Your task to perform on an android device: open app "VLC for Android" (install if not already installed) Image 0: 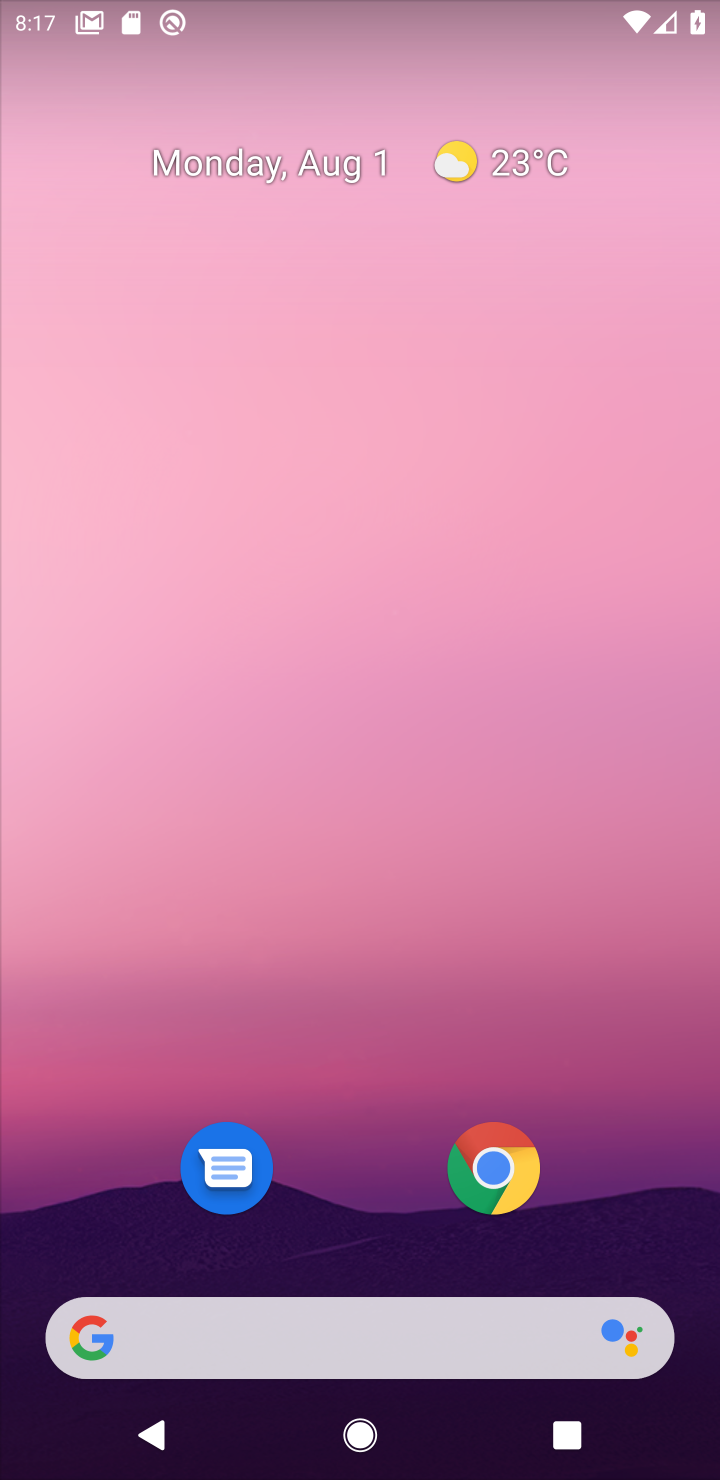
Step 0: drag from (405, 701) to (417, 342)
Your task to perform on an android device: open app "VLC for Android" (install if not already installed) Image 1: 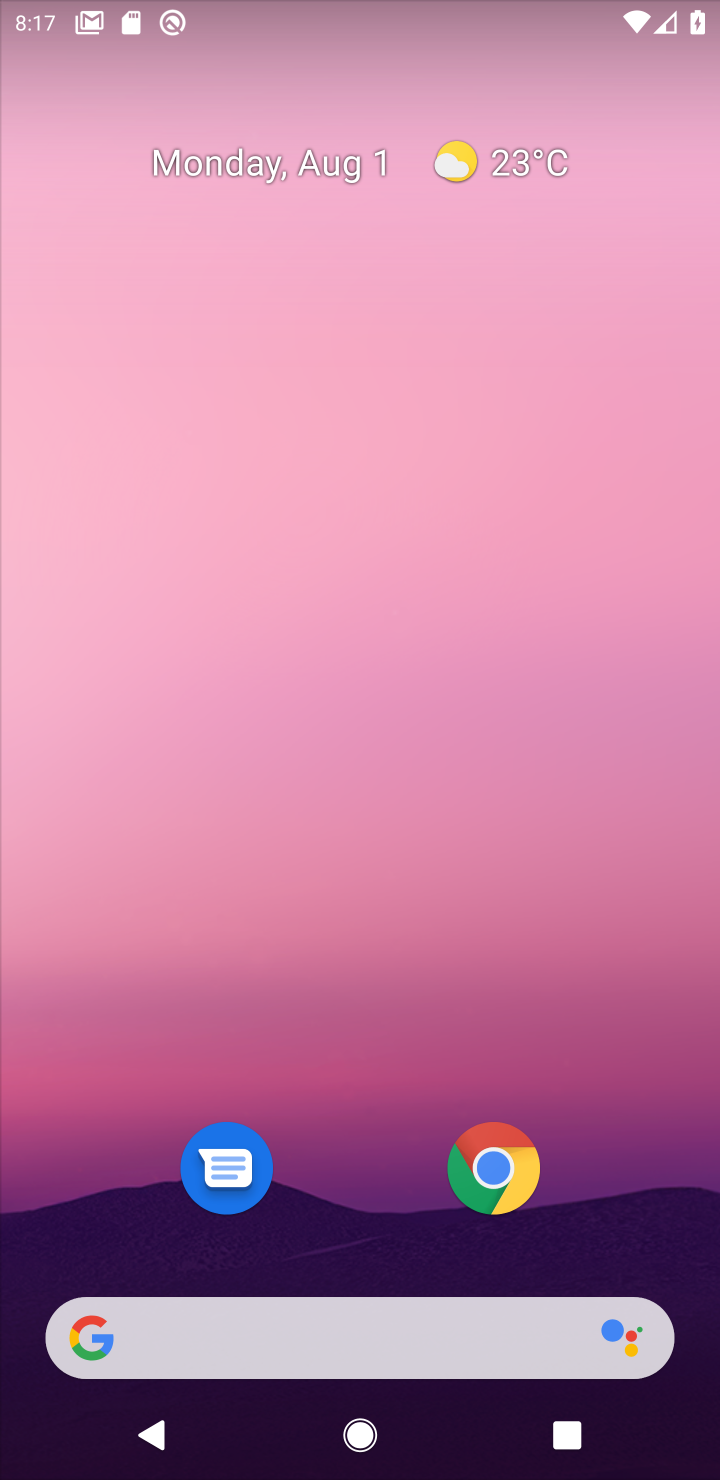
Step 1: drag from (379, 1230) to (362, 337)
Your task to perform on an android device: open app "VLC for Android" (install if not already installed) Image 2: 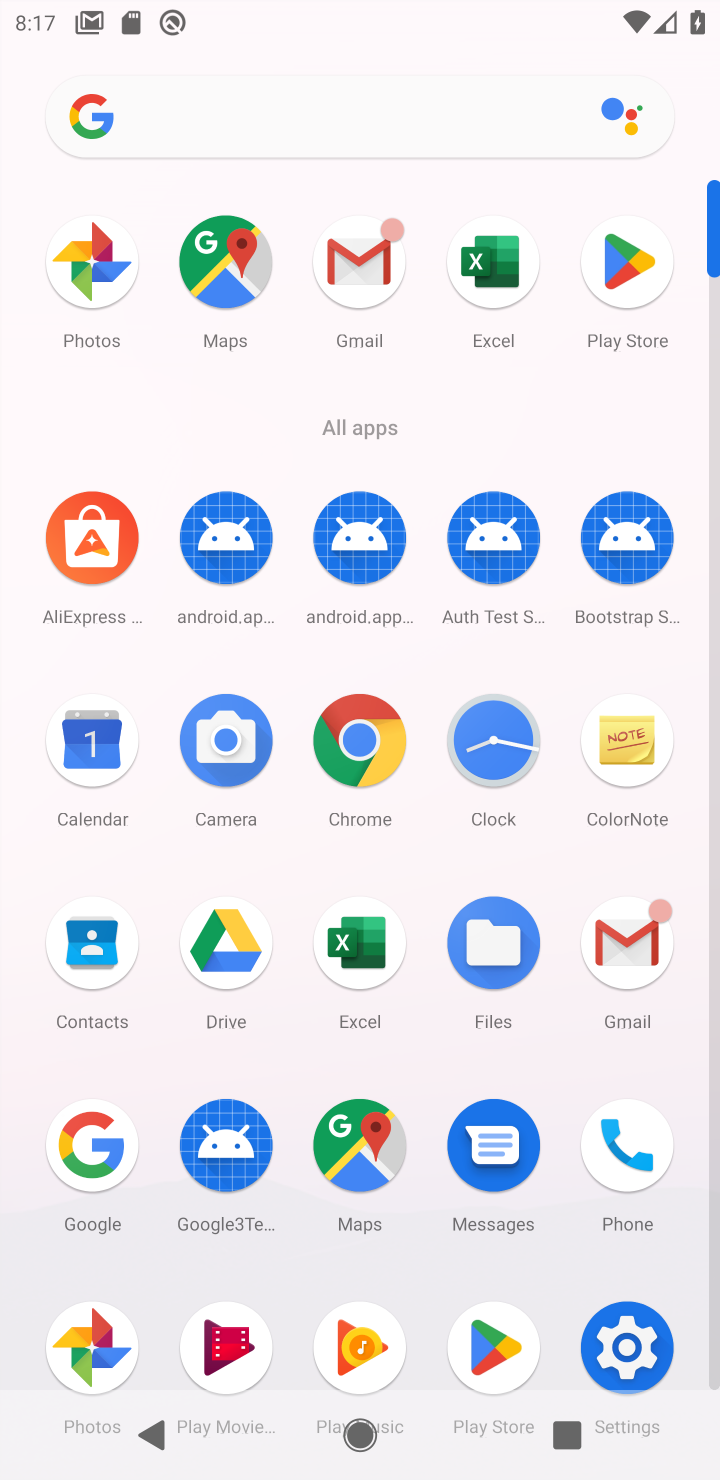
Step 2: click (495, 1326)
Your task to perform on an android device: open app "VLC for Android" (install if not already installed) Image 3: 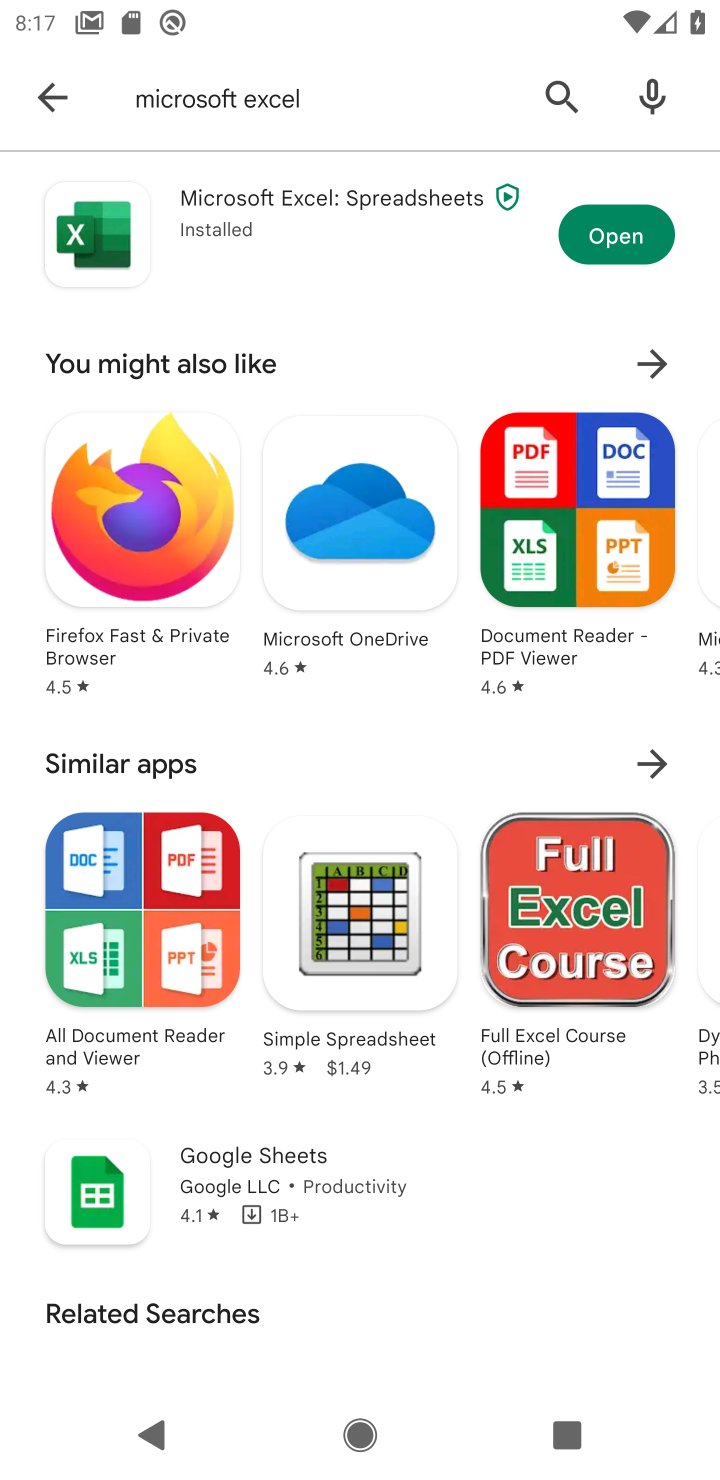
Step 3: click (262, 120)
Your task to perform on an android device: open app "VLC for Android" (install if not already installed) Image 4: 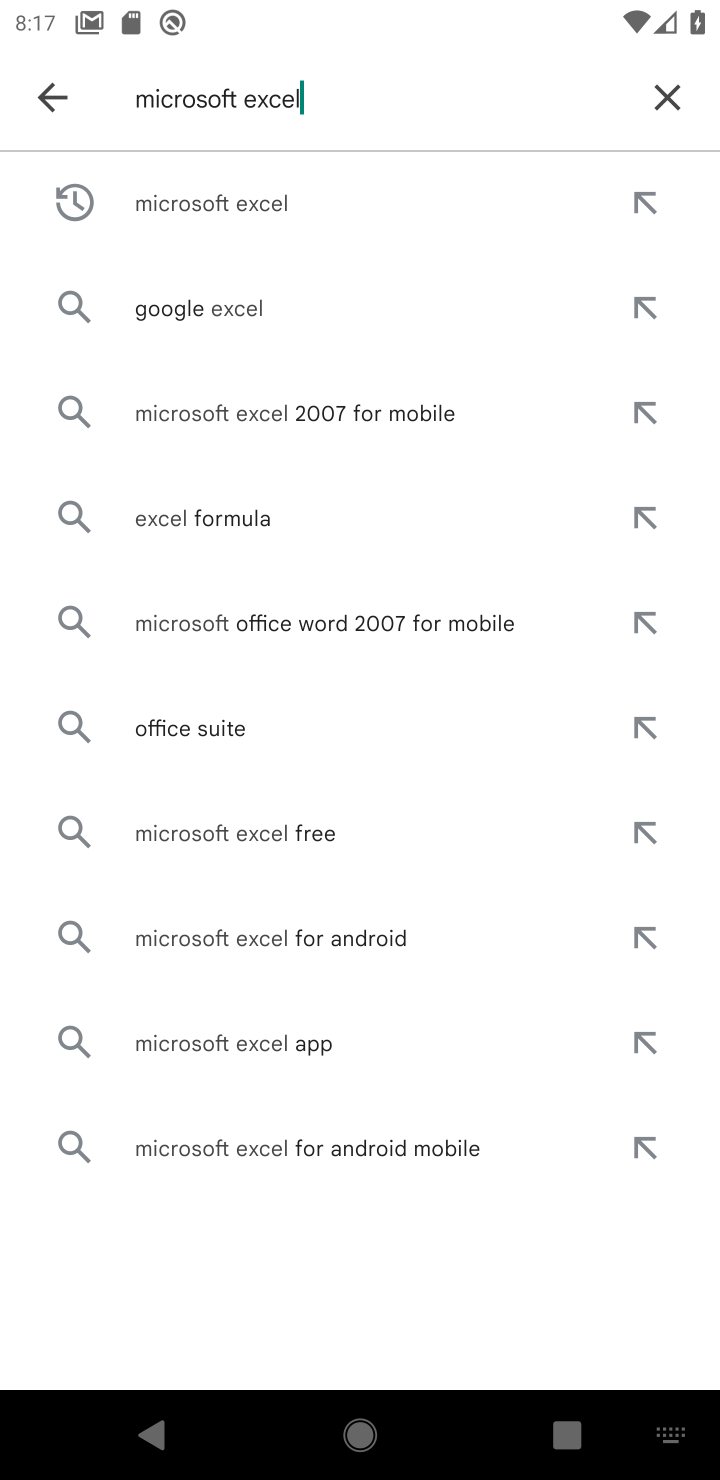
Step 4: click (666, 100)
Your task to perform on an android device: open app "VLC for Android" (install if not already installed) Image 5: 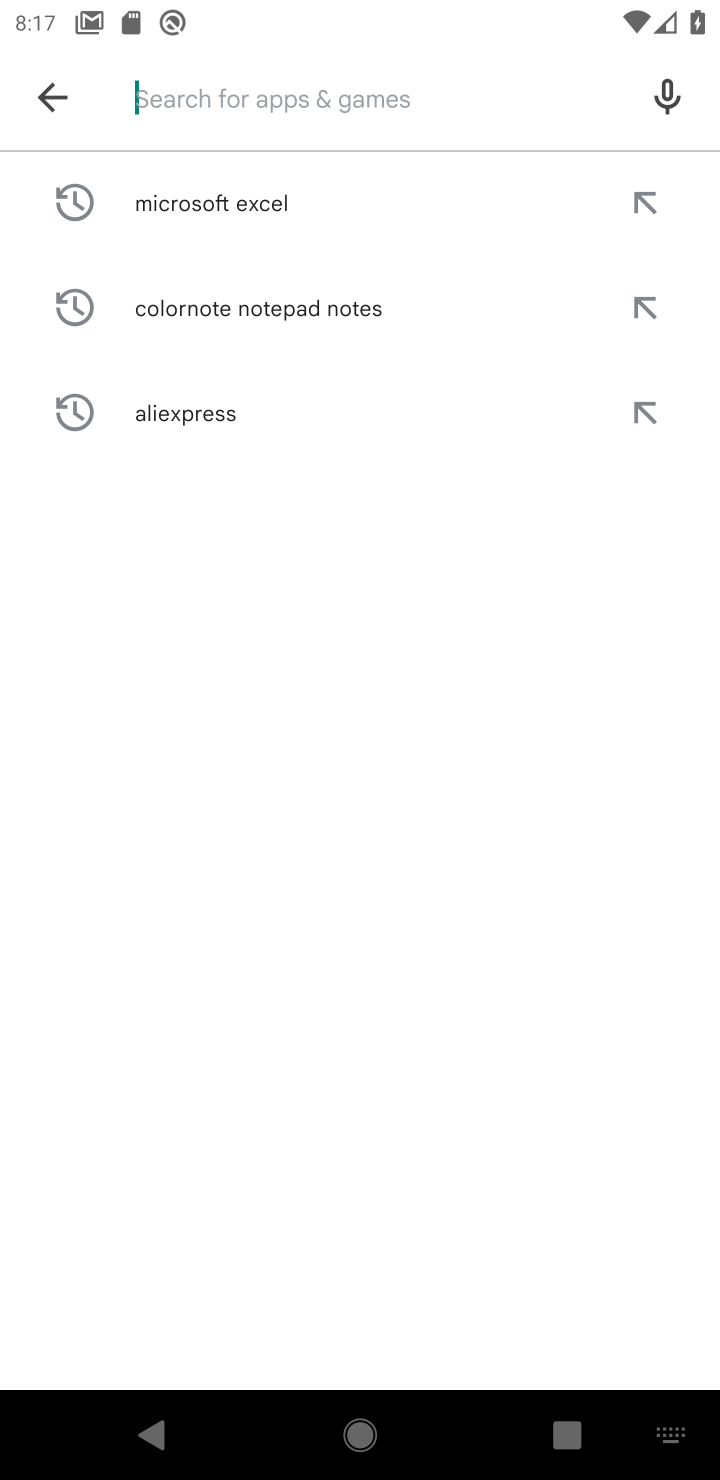
Step 5: type "VLC"
Your task to perform on an android device: open app "VLC for Android" (install if not already installed) Image 6: 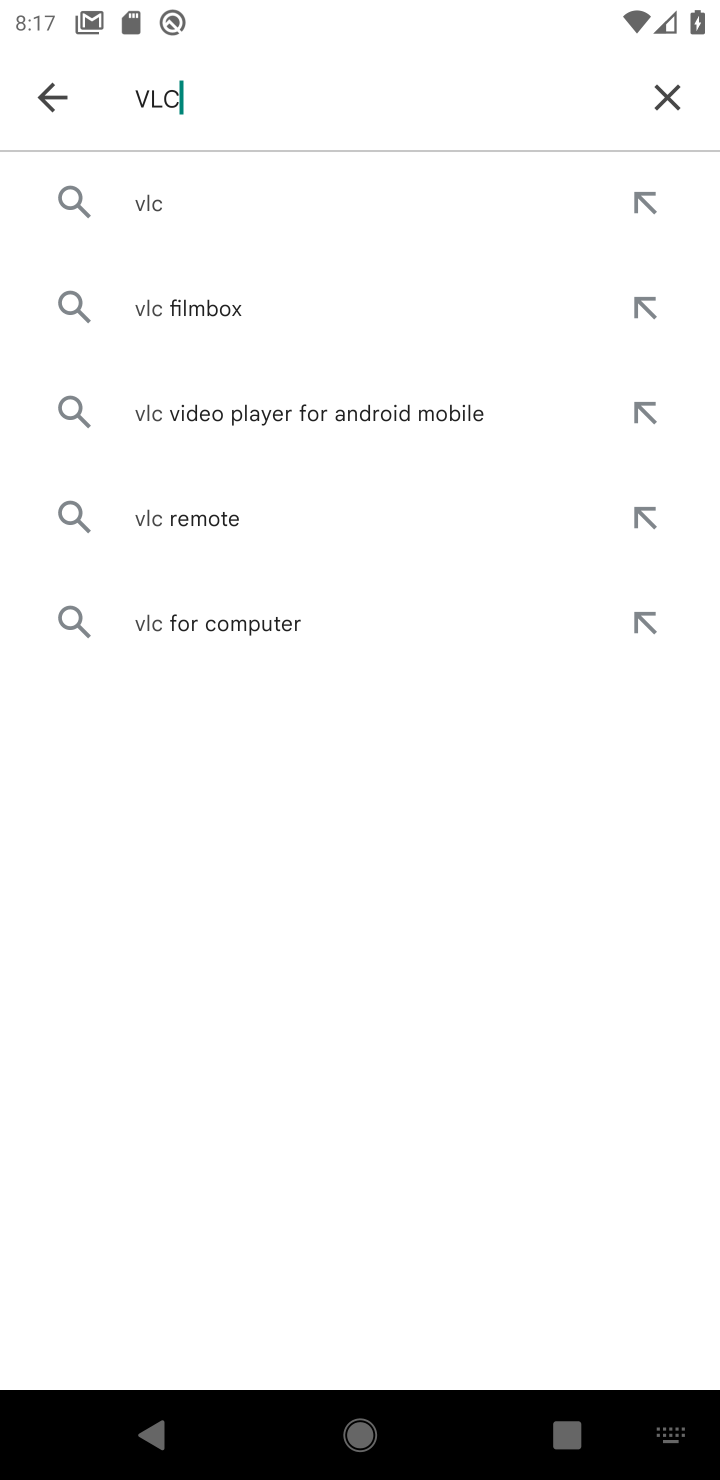
Step 6: click (148, 212)
Your task to perform on an android device: open app "VLC for Android" (install if not already installed) Image 7: 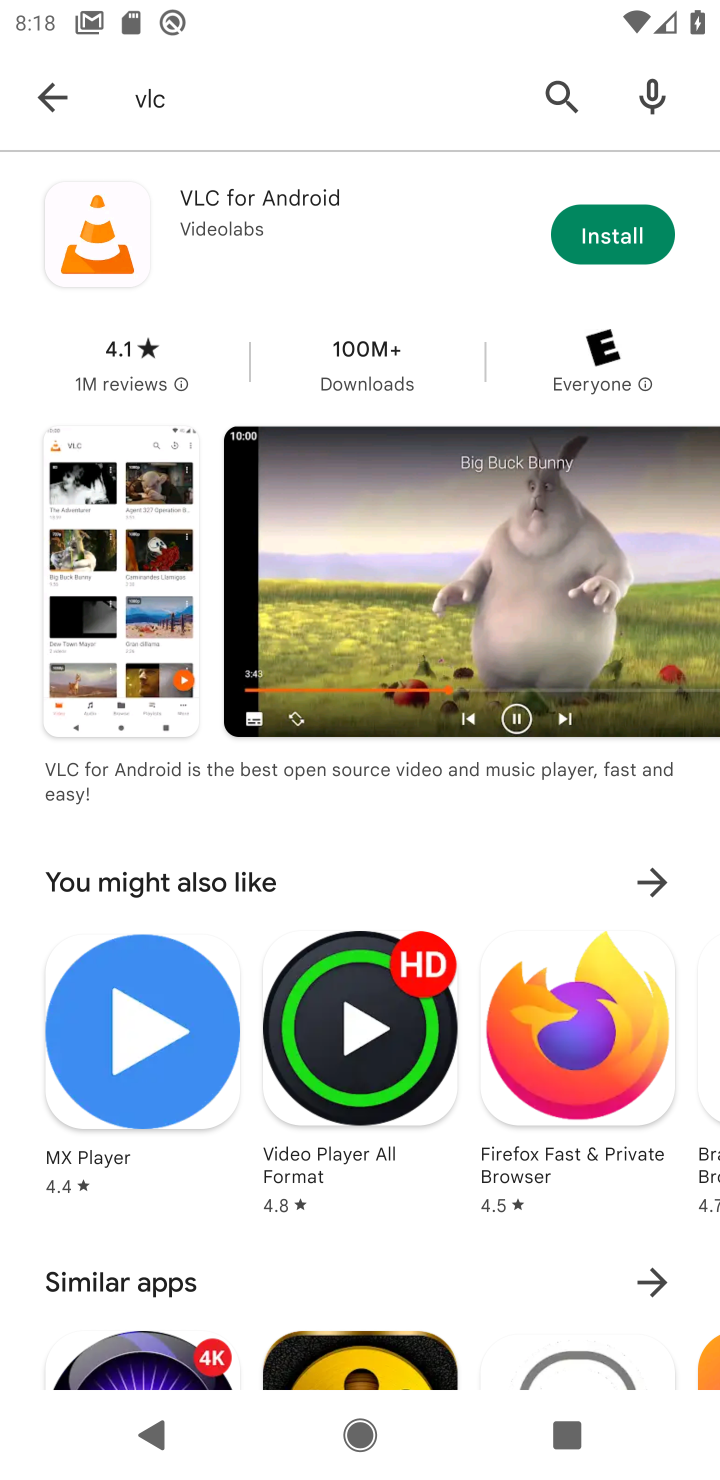
Step 7: click (614, 231)
Your task to perform on an android device: open app "VLC for Android" (install if not already installed) Image 8: 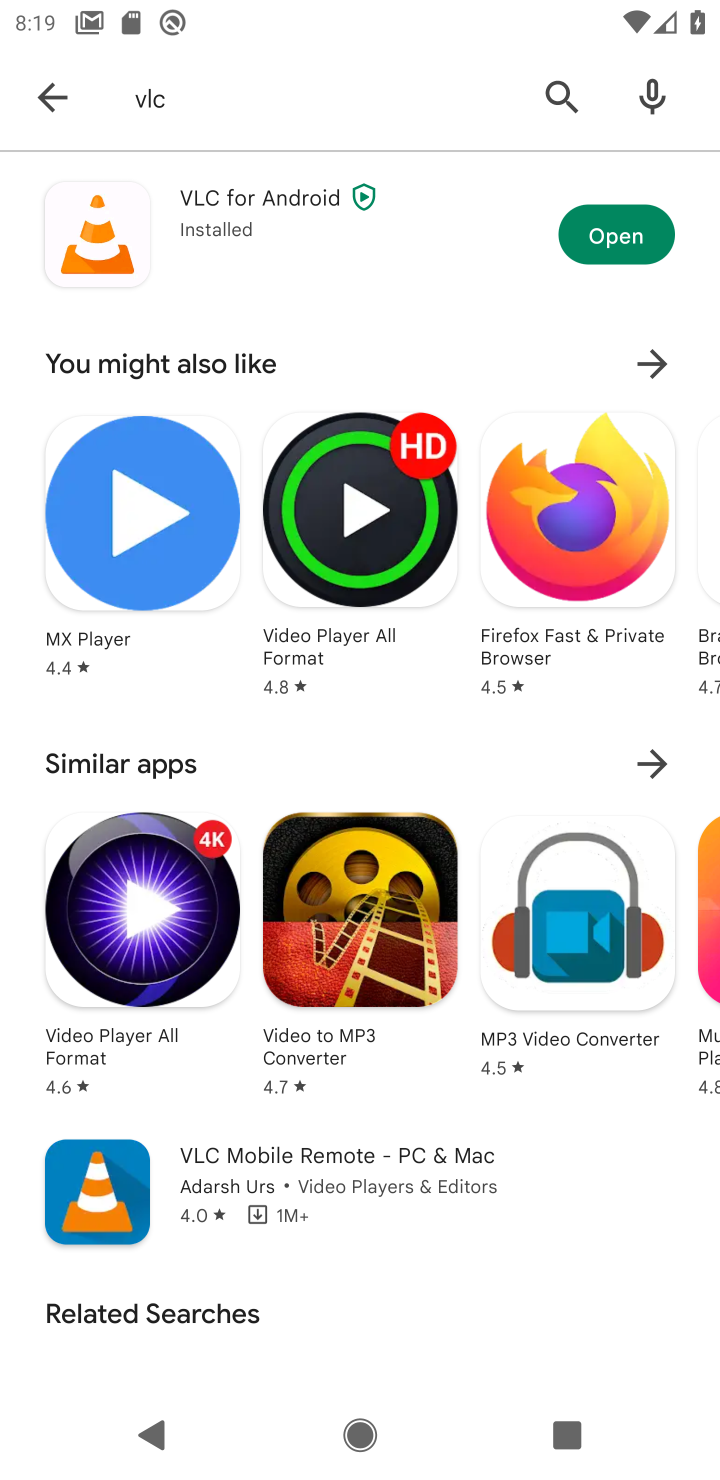
Step 8: click (629, 233)
Your task to perform on an android device: open app "VLC for Android" (install if not already installed) Image 9: 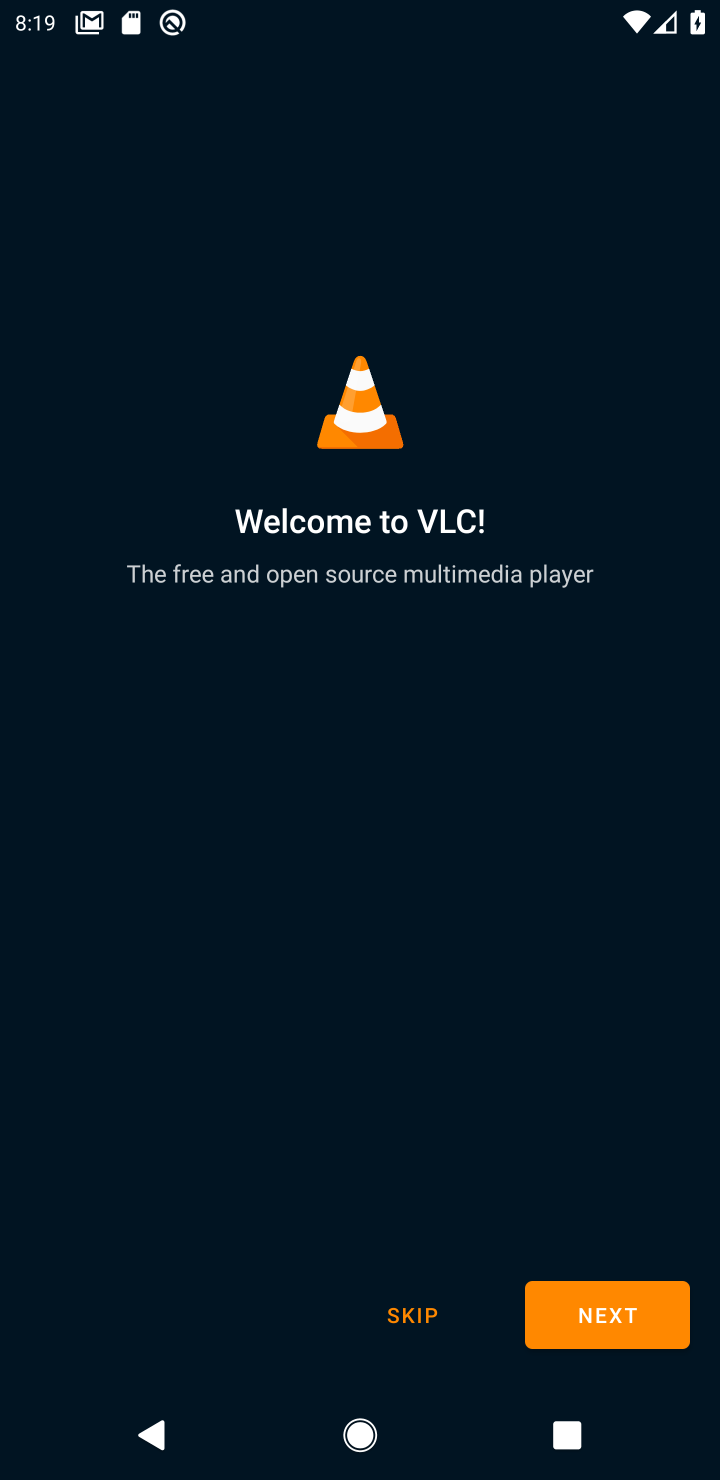
Step 9: click (430, 1295)
Your task to perform on an android device: open app "VLC for Android" (install if not already installed) Image 10: 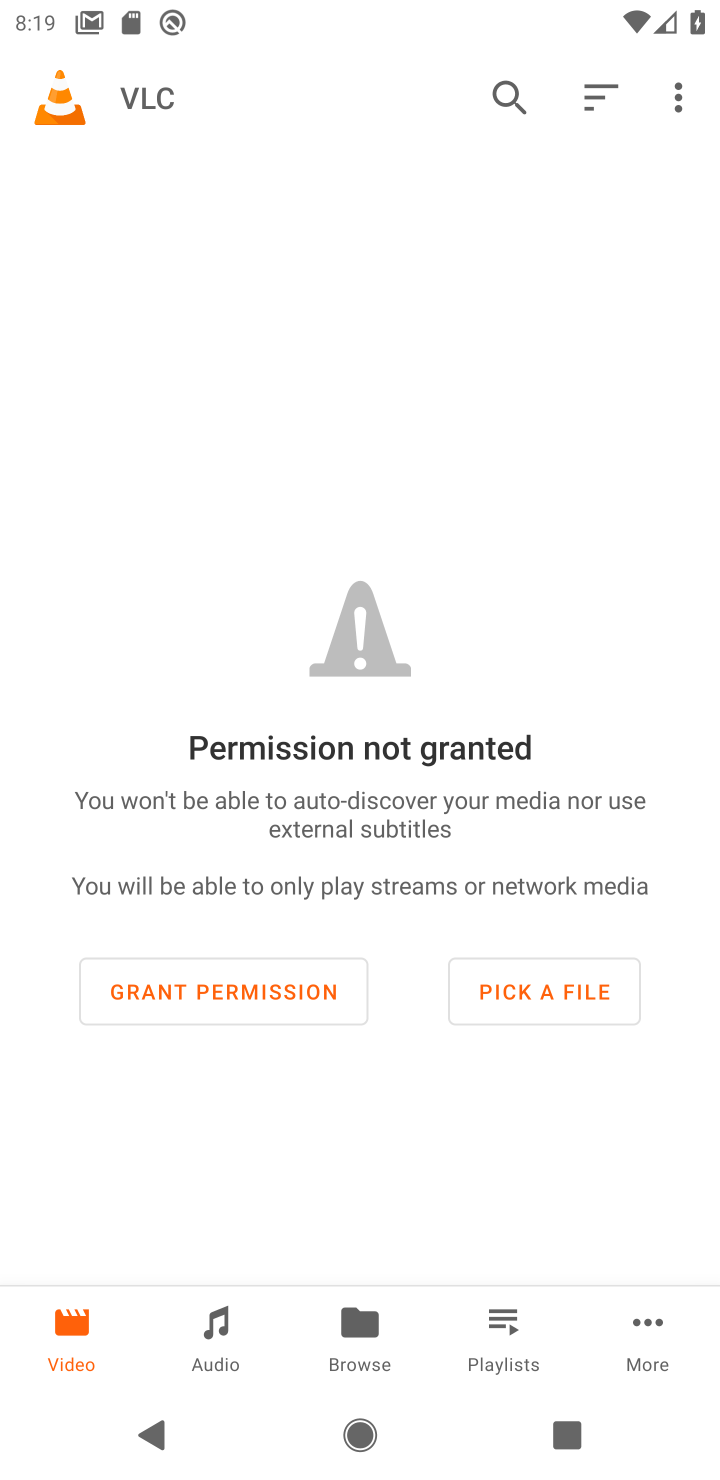
Step 10: task complete